Your task to perform on an android device: Open the web browser Image 0: 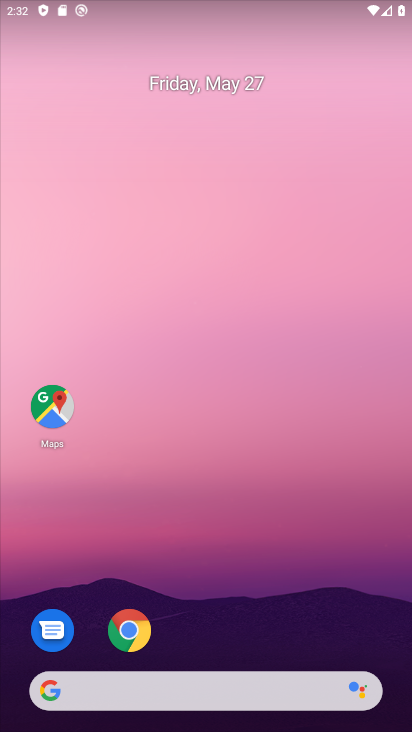
Step 0: click (202, 680)
Your task to perform on an android device: Open the web browser Image 1: 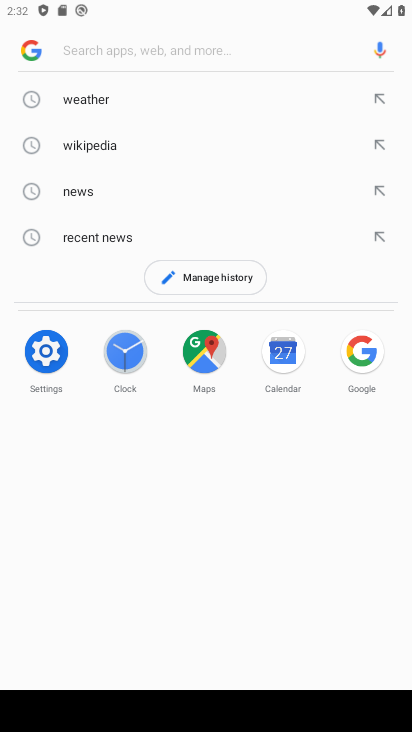
Step 1: task complete